Your task to perform on an android device: Go to Reddit.com Image 0: 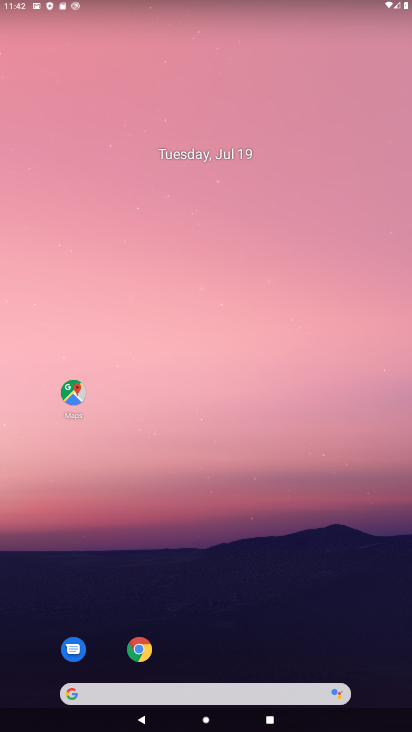
Step 0: click (142, 658)
Your task to perform on an android device: Go to Reddit.com Image 1: 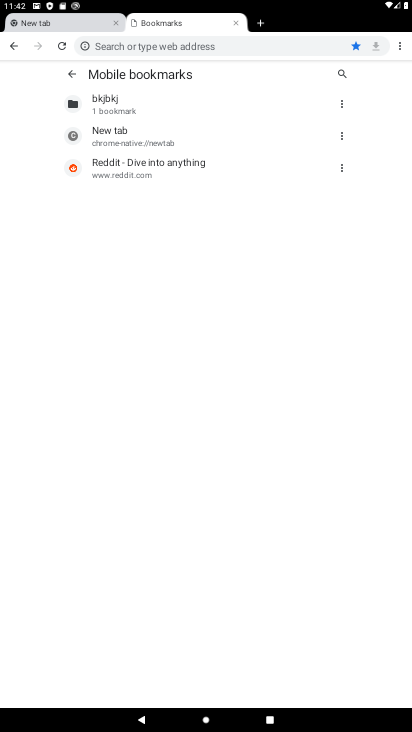
Step 1: click (261, 14)
Your task to perform on an android device: Go to Reddit.com Image 2: 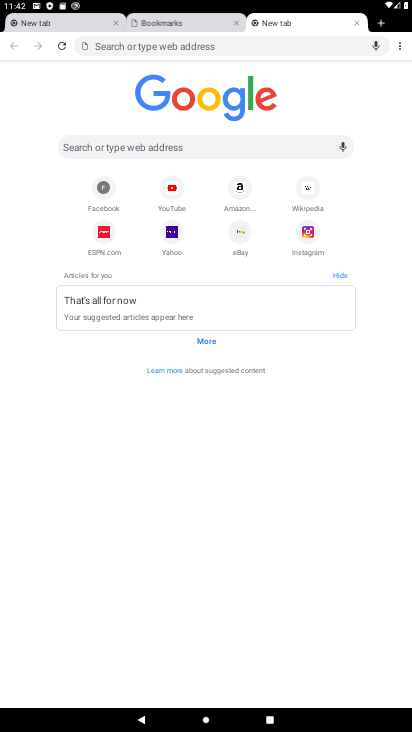
Step 2: click (179, 137)
Your task to perform on an android device: Go to Reddit.com Image 3: 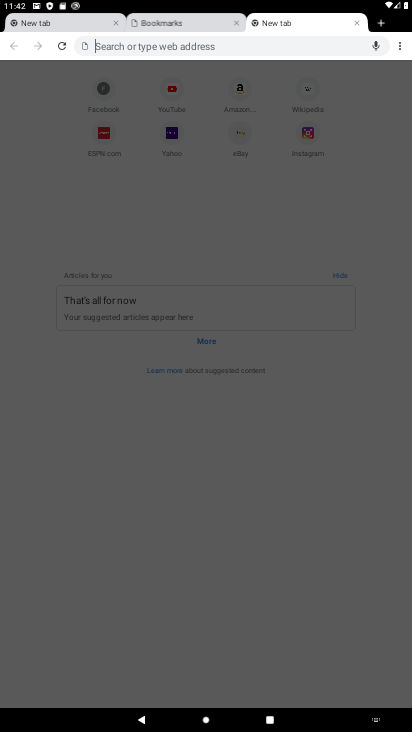
Step 3: type "reddit"
Your task to perform on an android device: Go to Reddit.com Image 4: 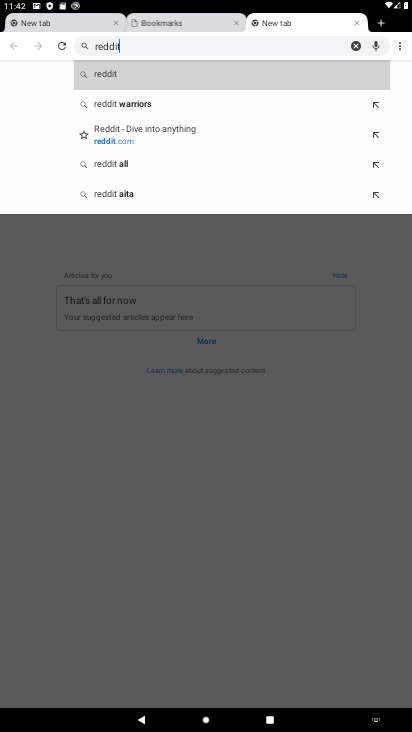
Step 4: click (127, 132)
Your task to perform on an android device: Go to Reddit.com Image 5: 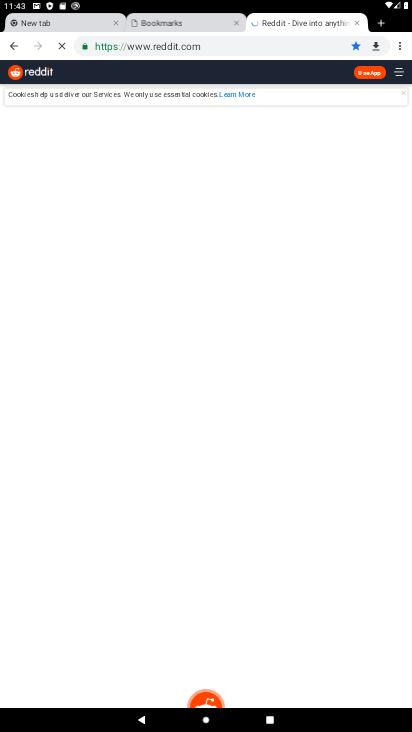
Step 5: task complete